Your task to perform on an android device: Open settings Image 0: 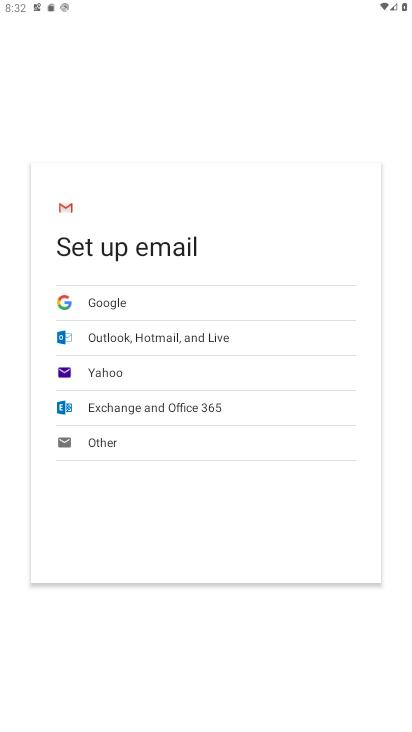
Step 0: press home button
Your task to perform on an android device: Open settings Image 1: 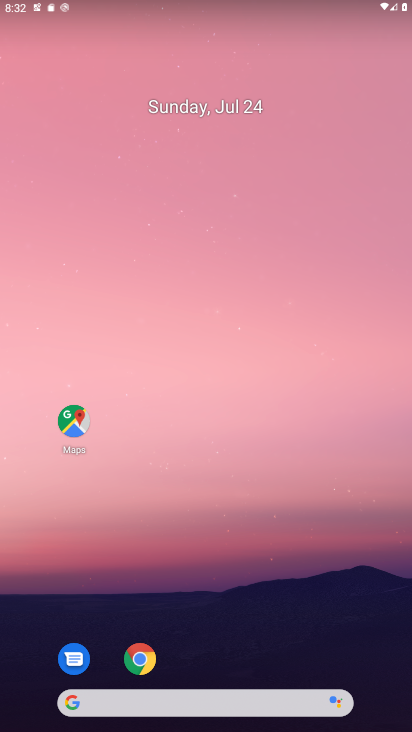
Step 1: drag from (201, 615) to (180, 257)
Your task to perform on an android device: Open settings Image 2: 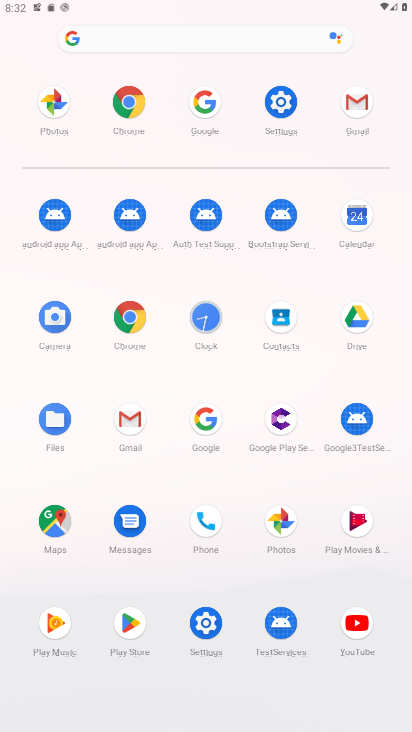
Step 2: click (284, 96)
Your task to perform on an android device: Open settings Image 3: 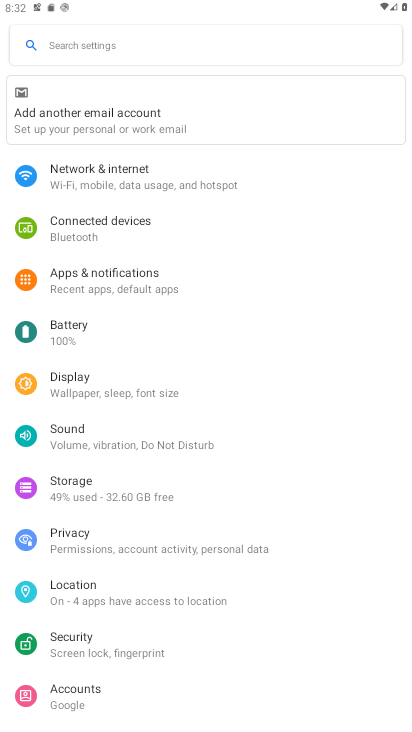
Step 3: task complete